Your task to perform on an android device: Open the stopwatch Image 0: 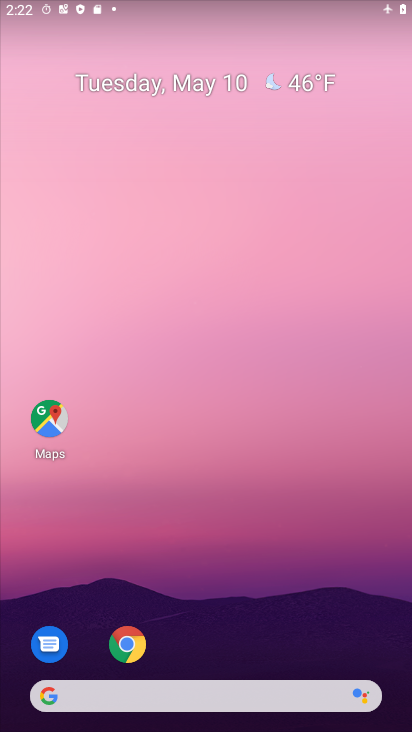
Step 0: drag from (221, 643) to (199, 334)
Your task to perform on an android device: Open the stopwatch Image 1: 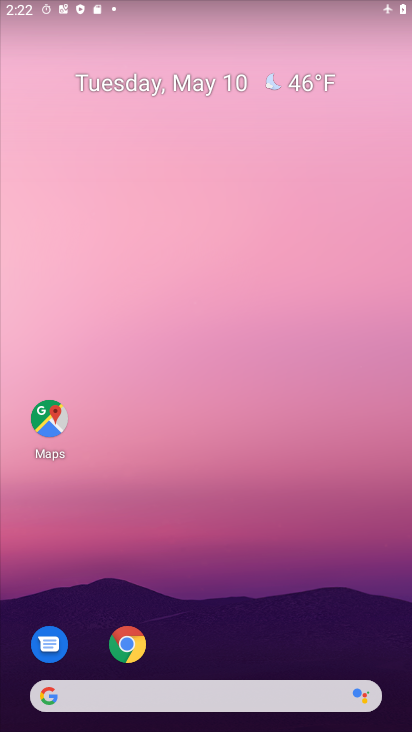
Step 1: drag from (218, 660) to (230, 227)
Your task to perform on an android device: Open the stopwatch Image 2: 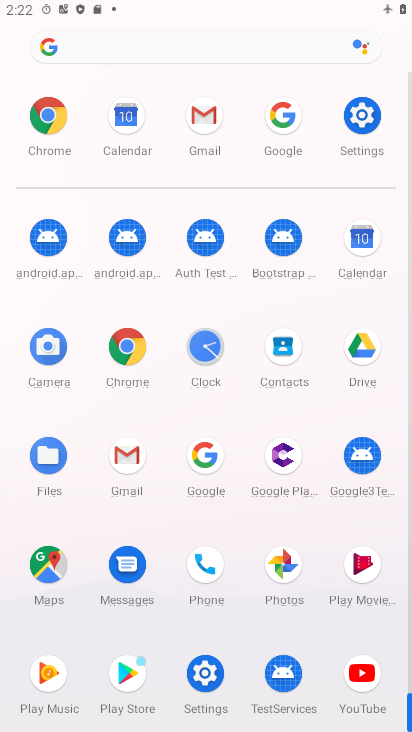
Step 2: click (202, 353)
Your task to perform on an android device: Open the stopwatch Image 3: 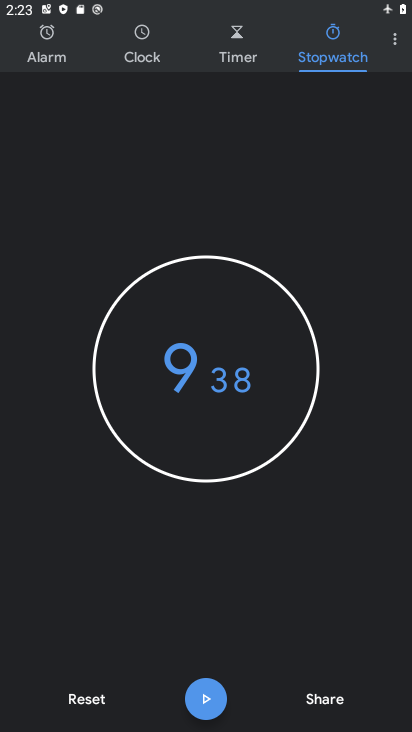
Step 3: task complete